Your task to perform on an android device: Empty the shopping cart on walmart. Search for "sony triple a" on walmart, select the first entry, add it to the cart, then select checkout. Image 0: 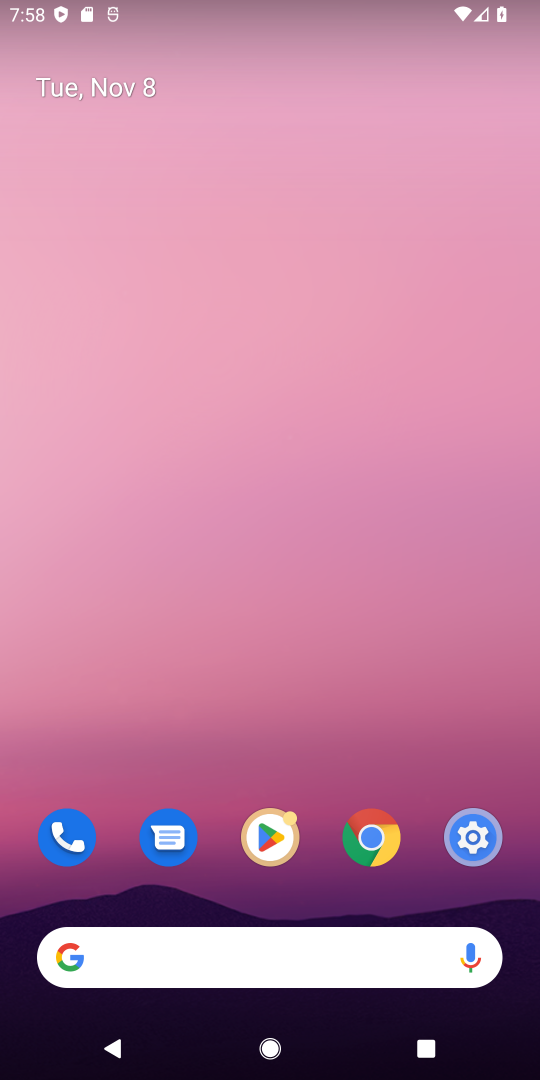
Step 0: click (374, 850)
Your task to perform on an android device: Empty the shopping cart on walmart. Search for "sony triple a" on walmart, select the first entry, add it to the cart, then select checkout. Image 1: 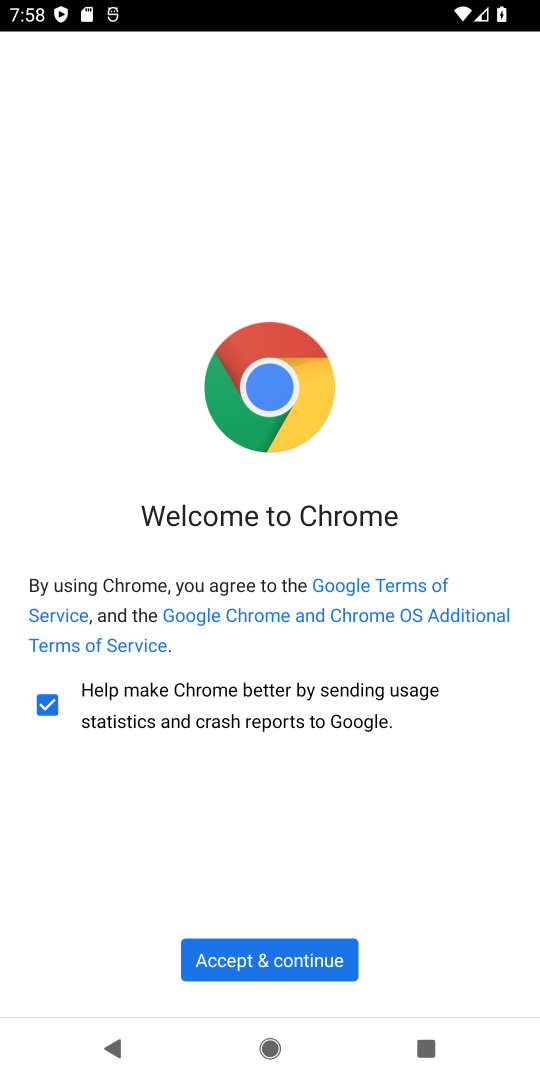
Step 1: click (298, 964)
Your task to perform on an android device: Empty the shopping cart on walmart. Search for "sony triple a" on walmart, select the first entry, add it to the cart, then select checkout. Image 2: 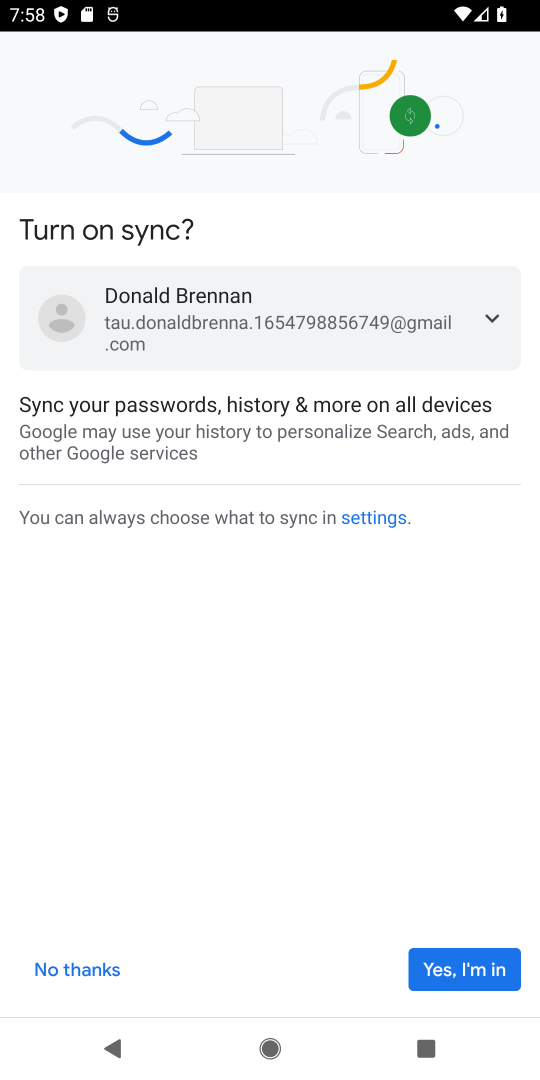
Step 2: click (426, 967)
Your task to perform on an android device: Empty the shopping cart on walmart. Search for "sony triple a" on walmart, select the first entry, add it to the cart, then select checkout. Image 3: 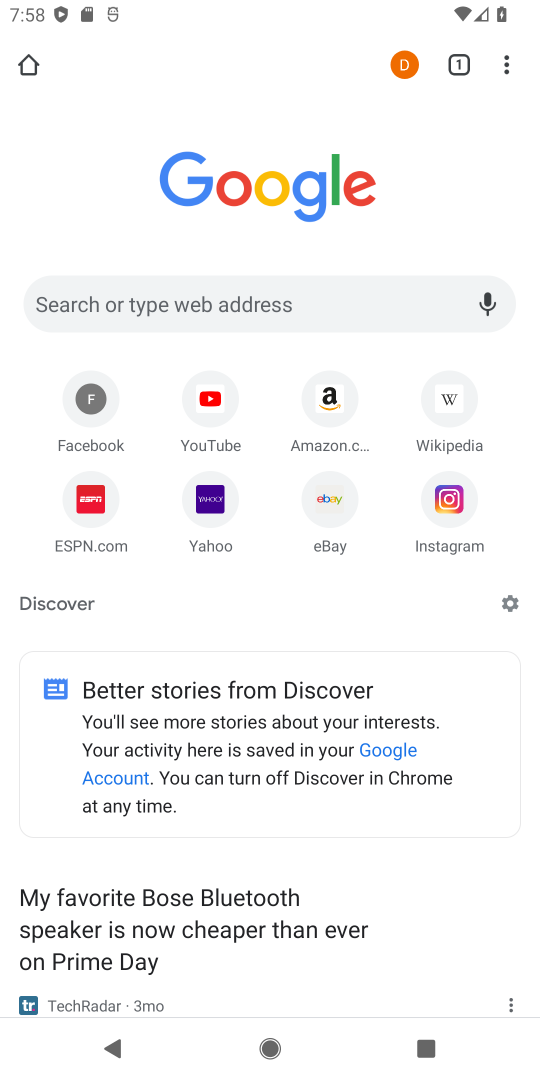
Step 3: click (237, 291)
Your task to perform on an android device: Empty the shopping cart on walmart. Search for "sony triple a" on walmart, select the first entry, add it to the cart, then select checkout. Image 4: 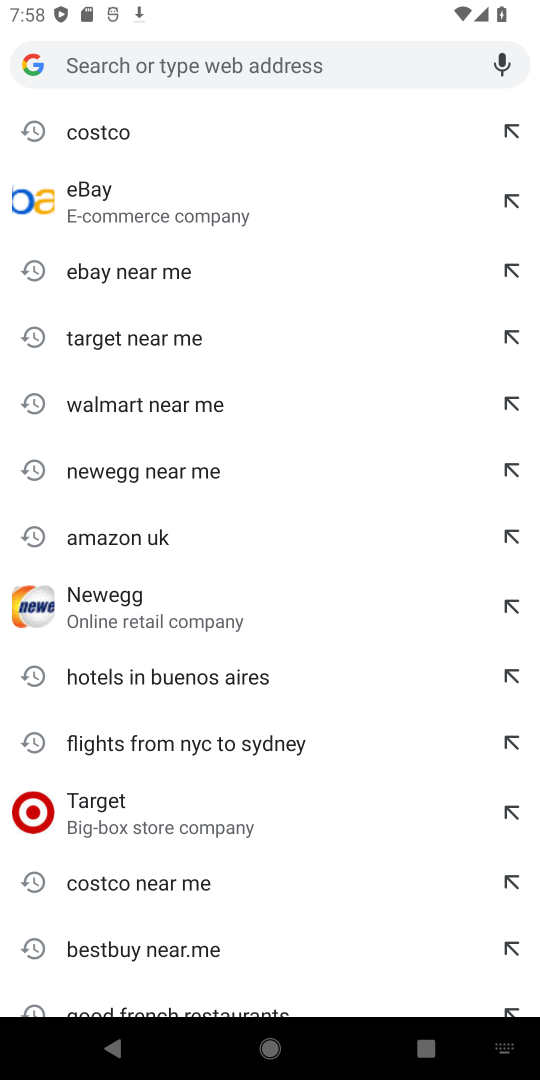
Step 4: type "walmart"
Your task to perform on an android device: Empty the shopping cart on walmart. Search for "sony triple a" on walmart, select the first entry, add it to the cart, then select checkout. Image 5: 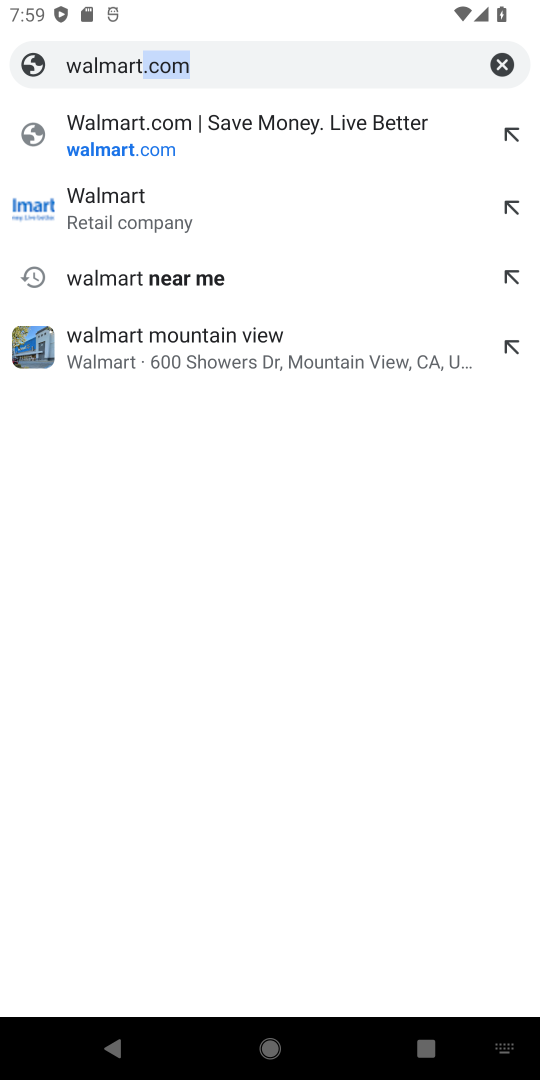
Step 5: click (109, 133)
Your task to perform on an android device: Empty the shopping cart on walmart. Search for "sony triple a" on walmart, select the first entry, add it to the cart, then select checkout. Image 6: 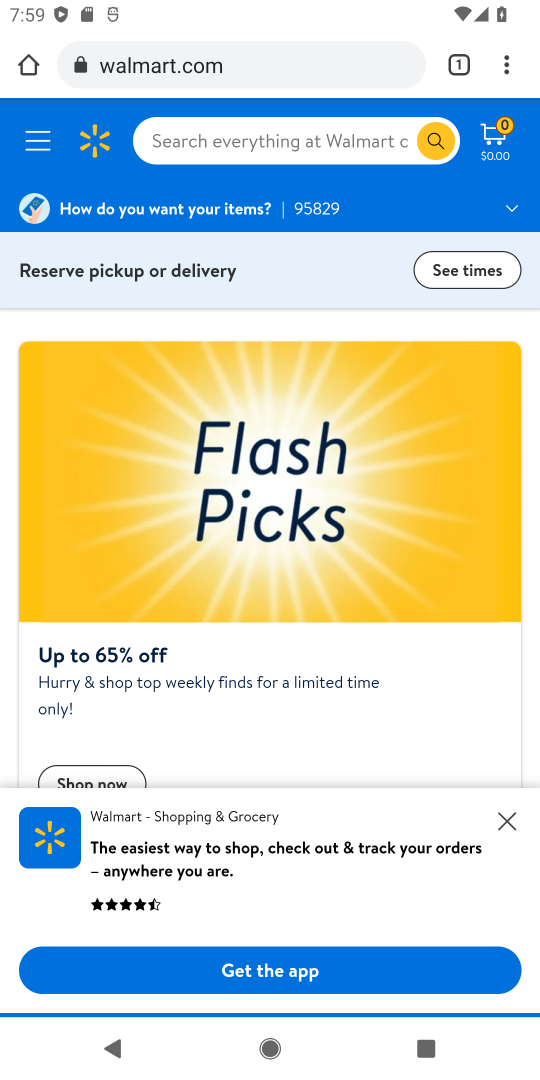
Step 6: click (235, 138)
Your task to perform on an android device: Empty the shopping cart on walmart. Search for "sony triple a" on walmart, select the first entry, add it to the cart, then select checkout. Image 7: 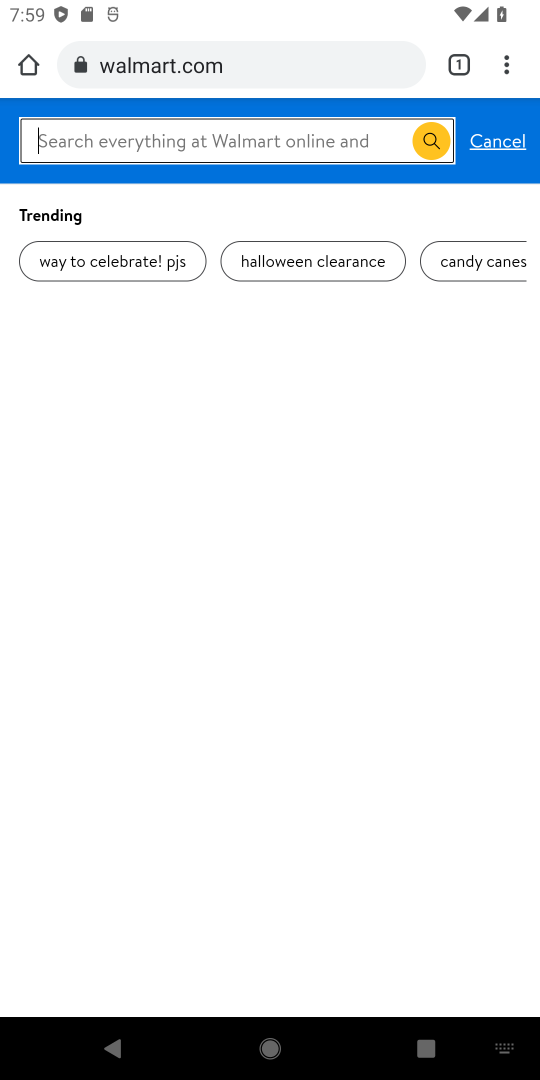
Step 7: type "sony triple a battery"
Your task to perform on an android device: Empty the shopping cart on walmart. Search for "sony triple a" on walmart, select the first entry, add it to the cart, then select checkout. Image 8: 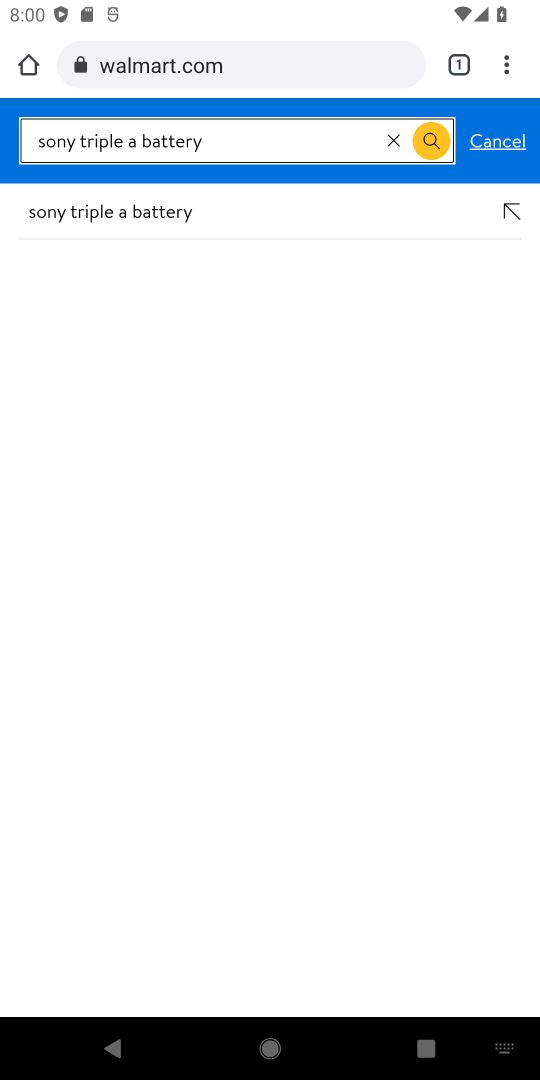
Step 8: click (123, 209)
Your task to perform on an android device: Empty the shopping cart on walmart. Search for "sony triple a" on walmart, select the first entry, add it to the cart, then select checkout. Image 9: 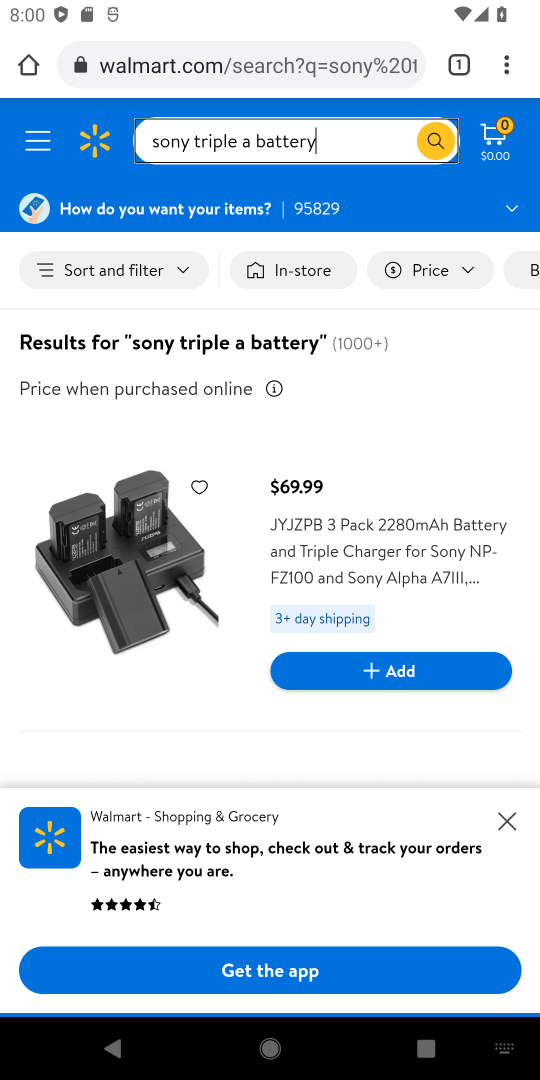
Step 9: click (414, 678)
Your task to perform on an android device: Empty the shopping cart on walmart. Search for "sony triple a" on walmart, select the first entry, add it to the cart, then select checkout. Image 10: 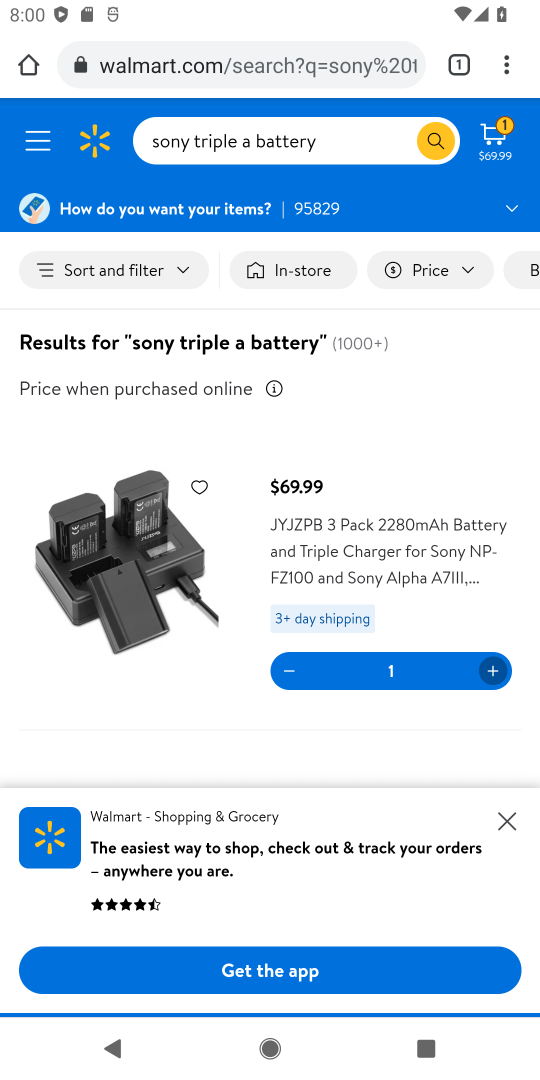
Step 10: task complete